Your task to perform on an android device: turn on wifi Image 0: 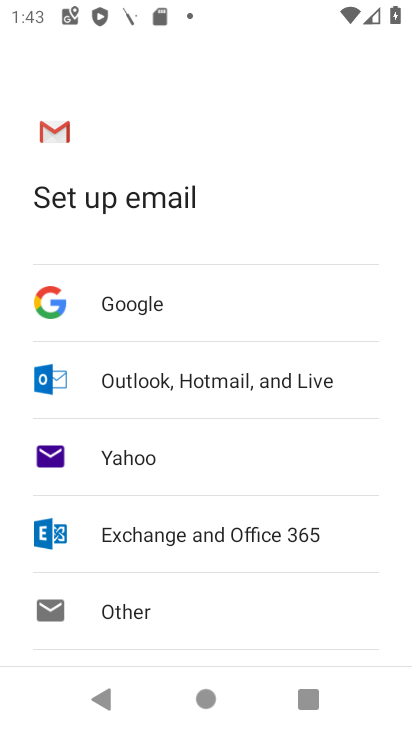
Step 0: press home button
Your task to perform on an android device: turn on wifi Image 1: 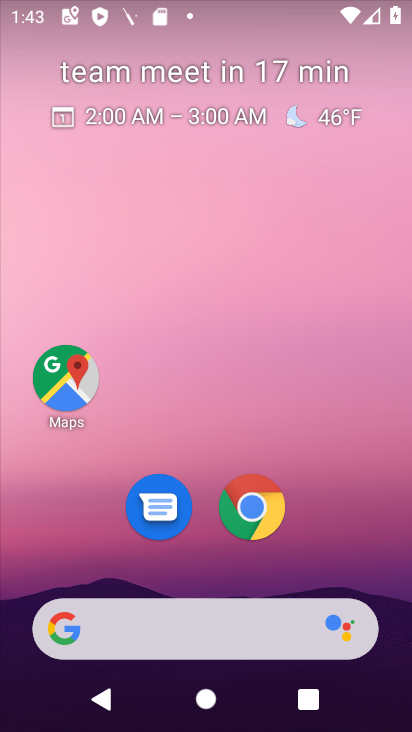
Step 1: drag from (293, 655) to (216, 182)
Your task to perform on an android device: turn on wifi Image 2: 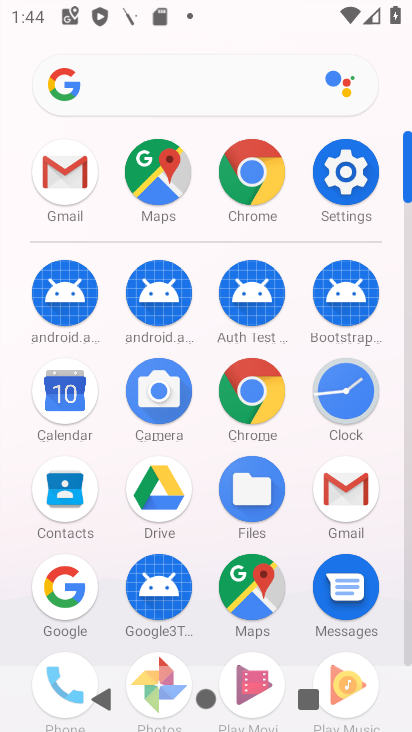
Step 2: click (349, 189)
Your task to perform on an android device: turn on wifi Image 3: 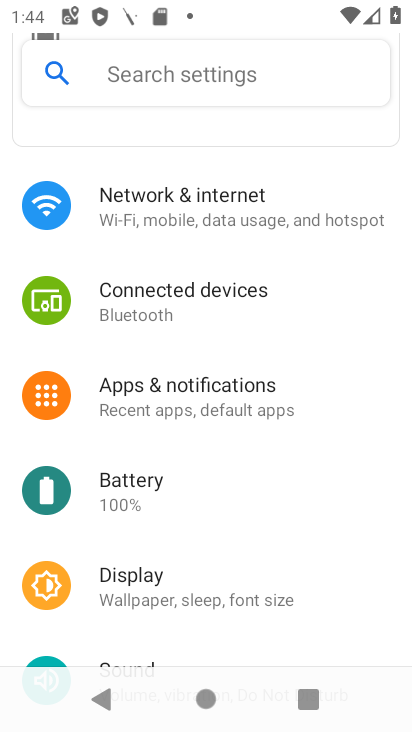
Step 3: click (217, 209)
Your task to perform on an android device: turn on wifi Image 4: 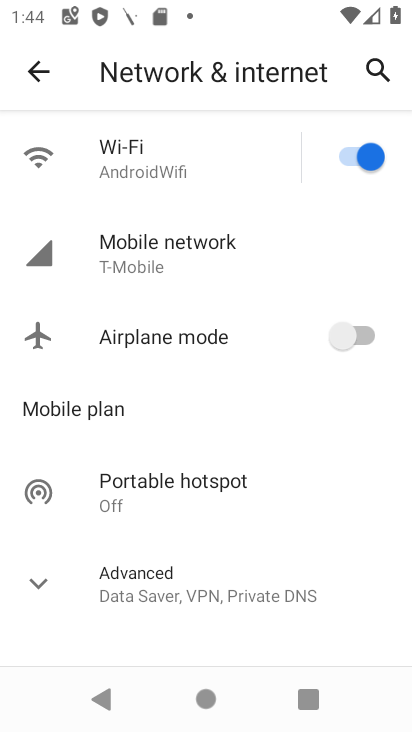
Step 4: click (203, 156)
Your task to perform on an android device: turn on wifi Image 5: 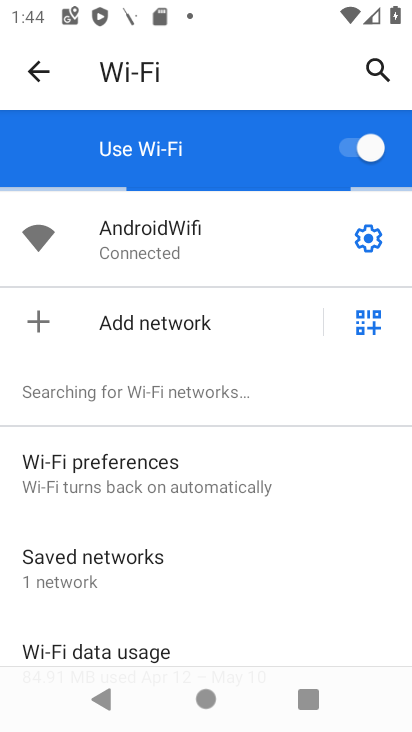
Step 5: task complete